Your task to perform on an android device: change notification settings in the gmail app Image 0: 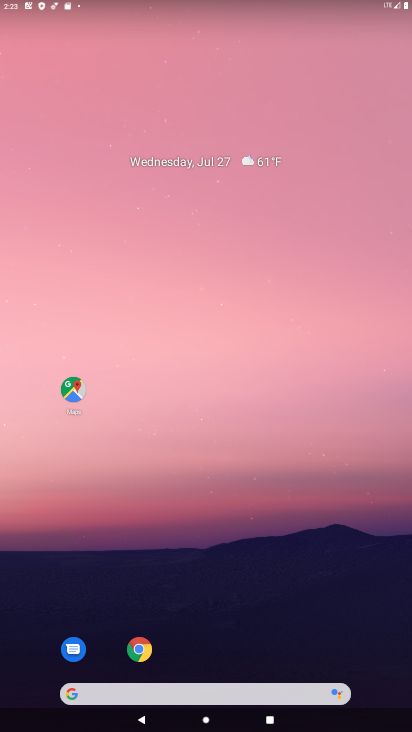
Step 0: drag from (168, 489) to (154, 155)
Your task to perform on an android device: change notification settings in the gmail app Image 1: 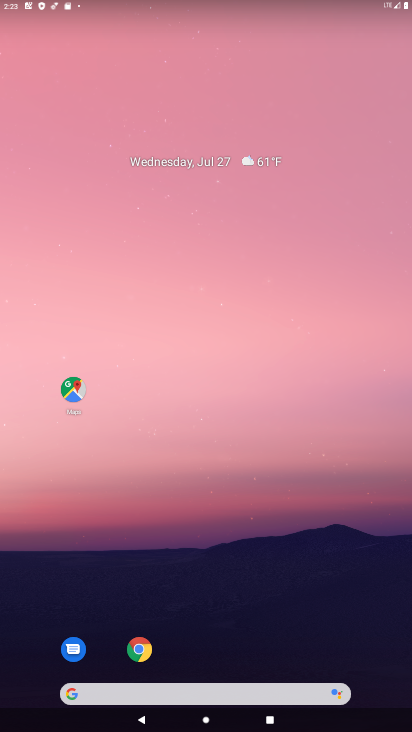
Step 1: drag from (184, 549) to (187, 144)
Your task to perform on an android device: change notification settings in the gmail app Image 2: 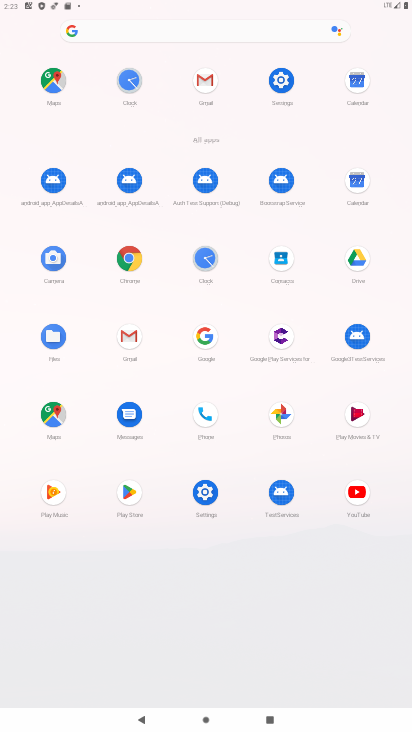
Step 2: click (282, 80)
Your task to perform on an android device: change notification settings in the gmail app Image 3: 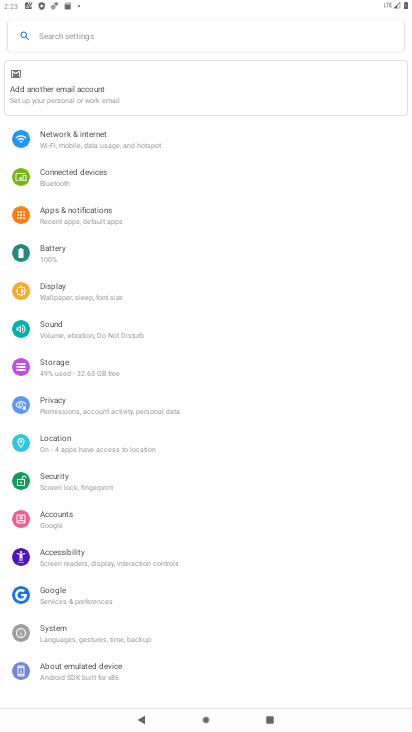
Step 3: click (84, 220)
Your task to perform on an android device: change notification settings in the gmail app Image 4: 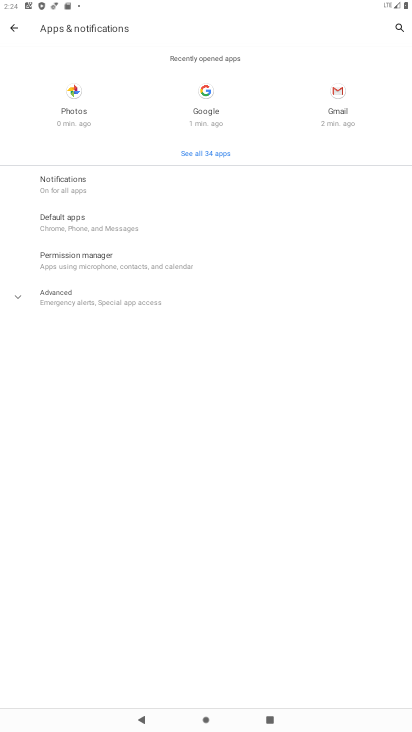
Step 4: click (51, 185)
Your task to perform on an android device: change notification settings in the gmail app Image 5: 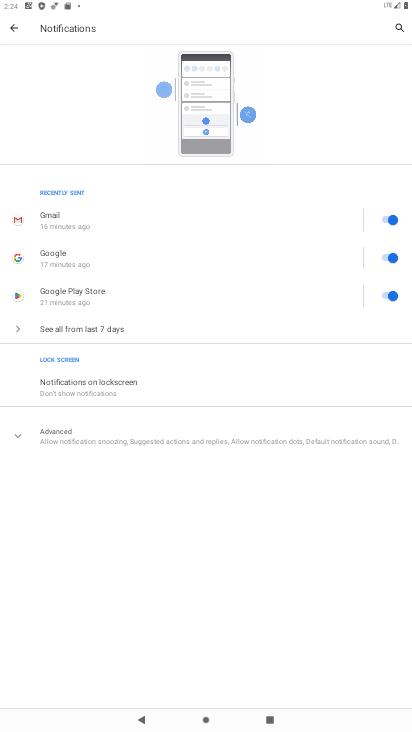
Step 5: click (59, 433)
Your task to perform on an android device: change notification settings in the gmail app Image 6: 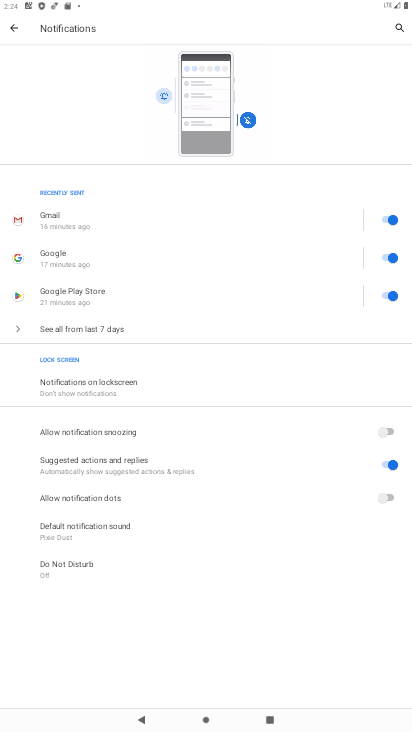
Step 6: press home button
Your task to perform on an android device: change notification settings in the gmail app Image 7: 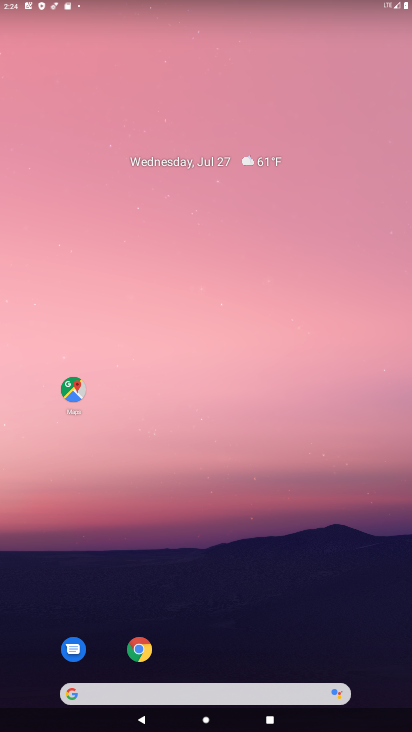
Step 7: drag from (153, 442) to (138, 106)
Your task to perform on an android device: change notification settings in the gmail app Image 8: 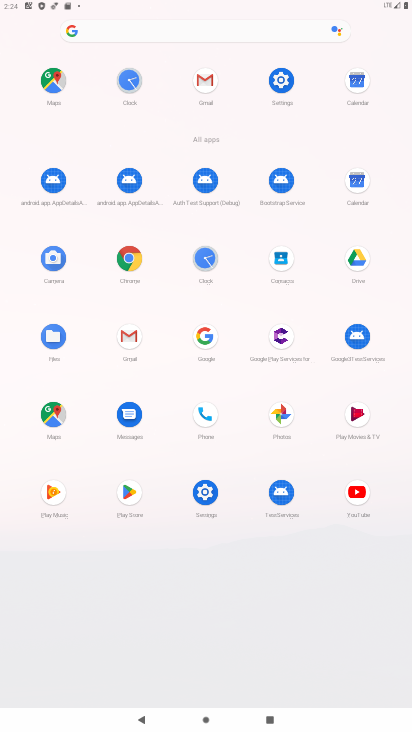
Step 8: click (206, 87)
Your task to perform on an android device: change notification settings in the gmail app Image 9: 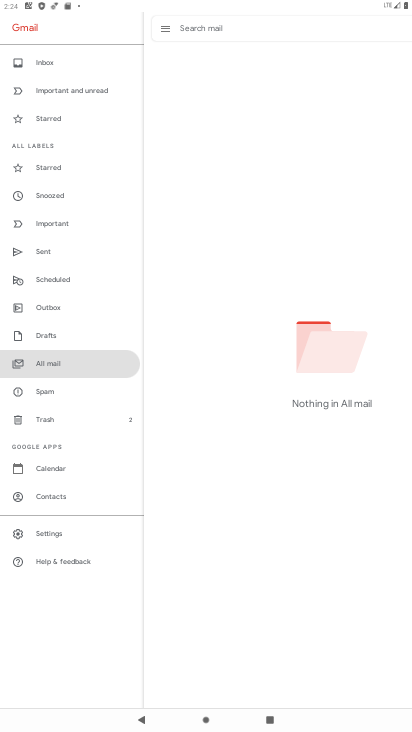
Step 9: click (47, 534)
Your task to perform on an android device: change notification settings in the gmail app Image 10: 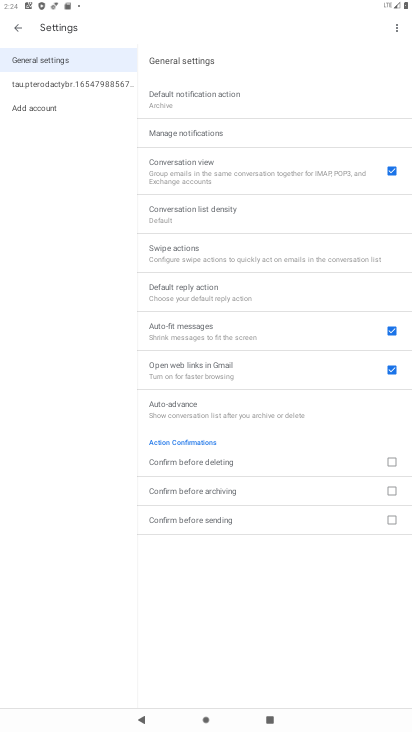
Step 10: click (67, 87)
Your task to perform on an android device: change notification settings in the gmail app Image 11: 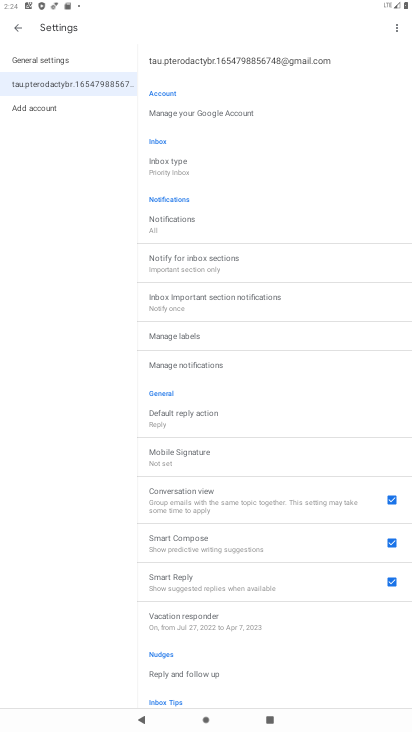
Step 11: click (195, 362)
Your task to perform on an android device: change notification settings in the gmail app Image 12: 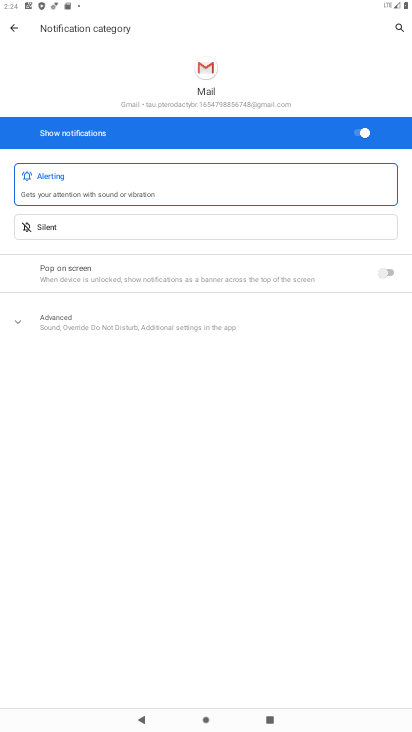
Step 12: click (355, 136)
Your task to perform on an android device: change notification settings in the gmail app Image 13: 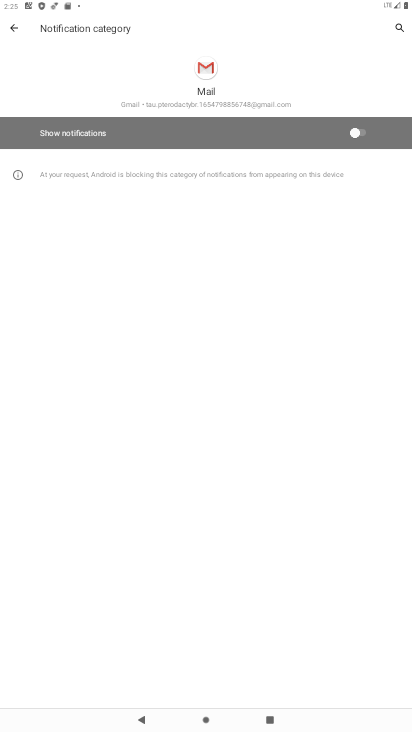
Step 13: task complete